Your task to perform on an android device: allow notifications from all sites in the chrome app Image 0: 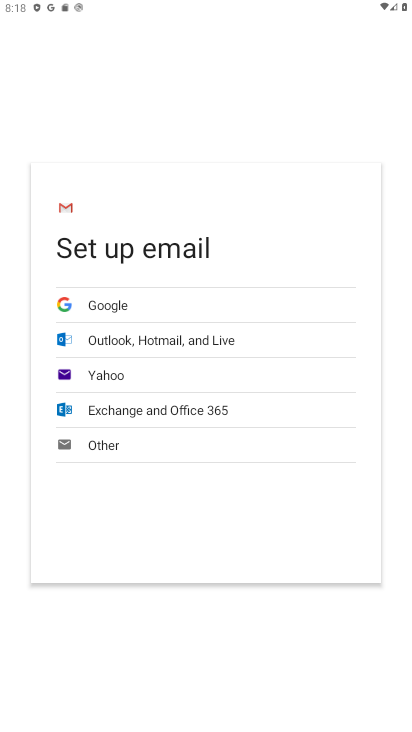
Step 0: press home button
Your task to perform on an android device: allow notifications from all sites in the chrome app Image 1: 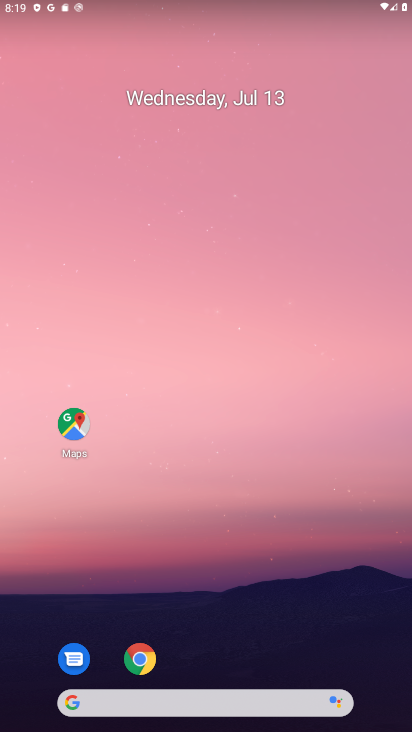
Step 1: drag from (274, 625) to (291, 520)
Your task to perform on an android device: allow notifications from all sites in the chrome app Image 2: 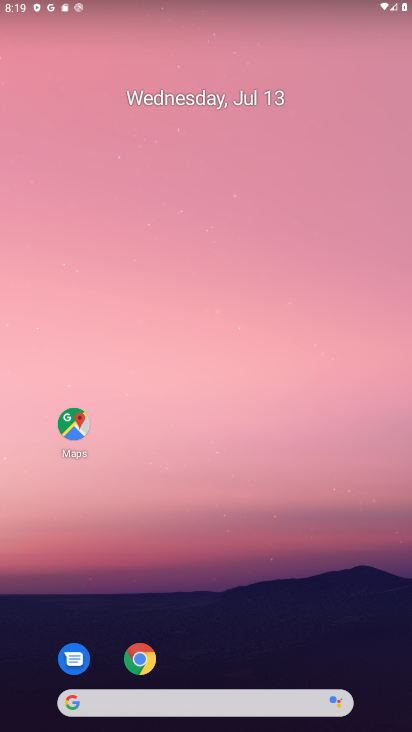
Step 2: click (145, 647)
Your task to perform on an android device: allow notifications from all sites in the chrome app Image 3: 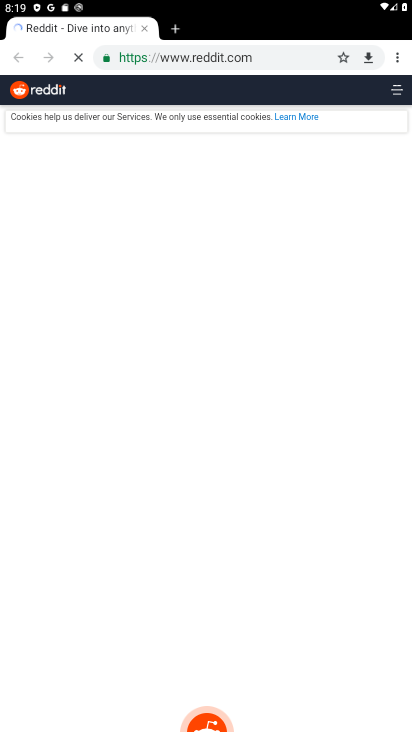
Step 3: click (400, 55)
Your task to perform on an android device: allow notifications from all sites in the chrome app Image 4: 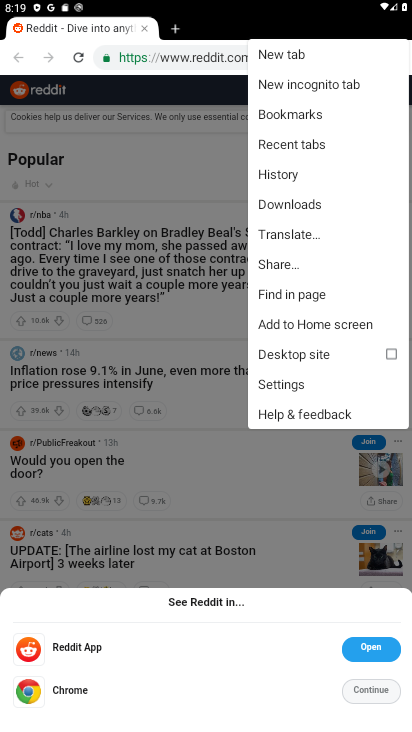
Step 4: click (286, 380)
Your task to perform on an android device: allow notifications from all sites in the chrome app Image 5: 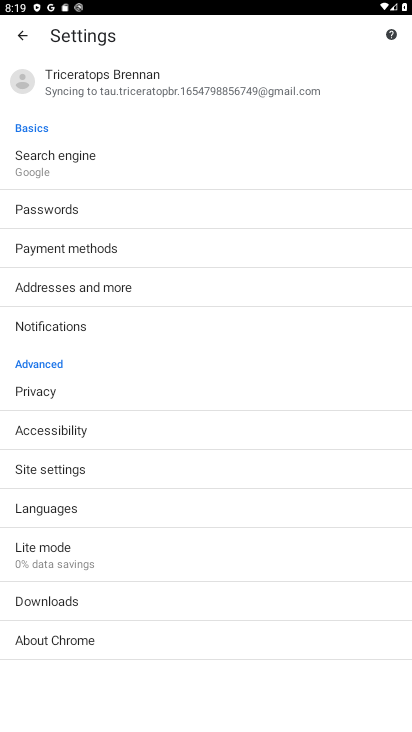
Step 5: click (194, 332)
Your task to perform on an android device: allow notifications from all sites in the chrome app Image 6: 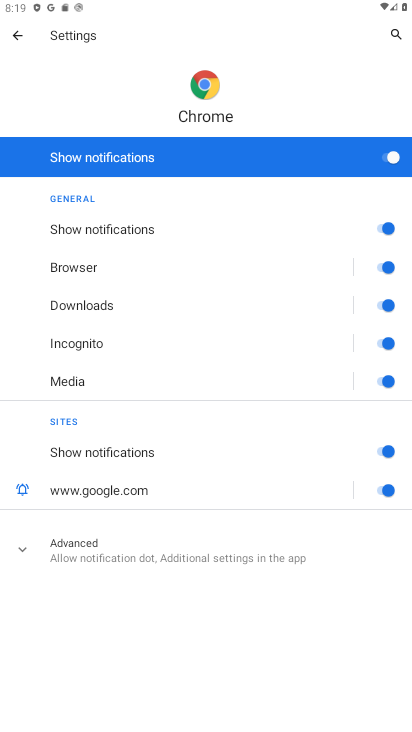
Step 6: task complete